Your task to perform on an android device: refresh tabs in the chrome app Image 0: 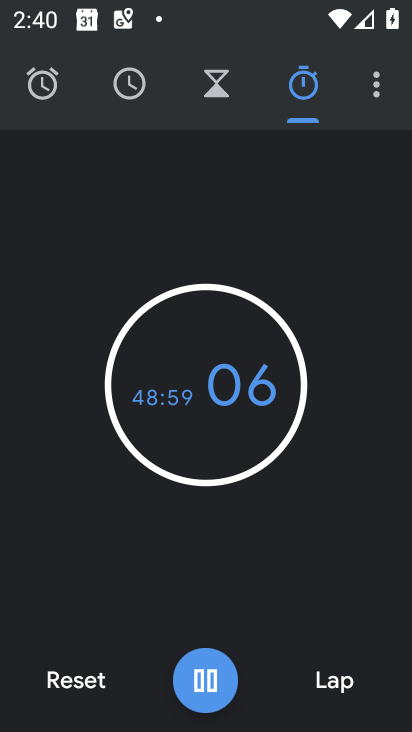
Step 0: press home button
Your task to perform on an android device: refresh tabs in the chrome app Image 1: 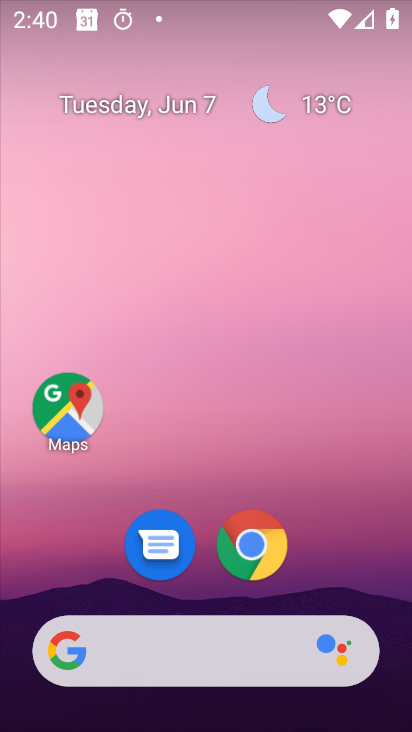
Step 1: click (270, 551)
Your task to perform on an android device: refresh tabs in the chrome app Image 2: 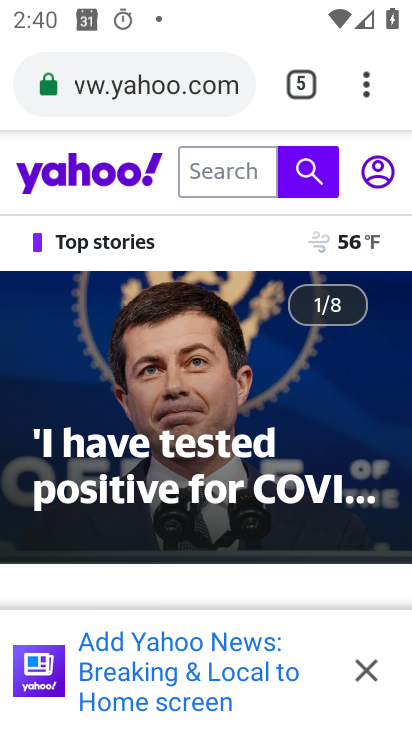
Step 2: click (366, 80)
Your task to perform on an android device: refresh tabs in the chrome app Image 3: 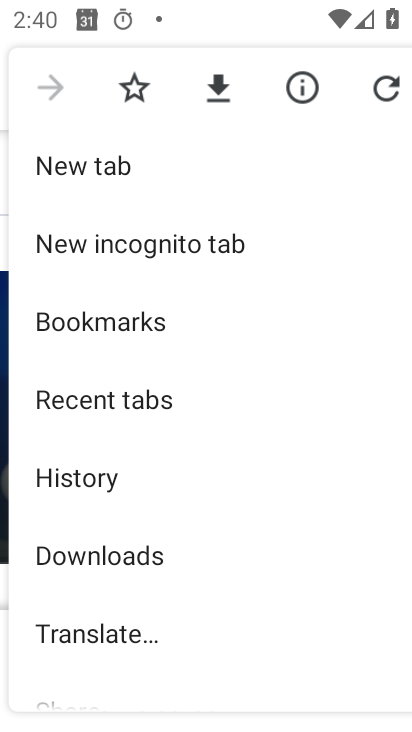
Step 3: click (367, 82)
Your task to perform on an android device: refresh tabs in the chrome app Image 4: 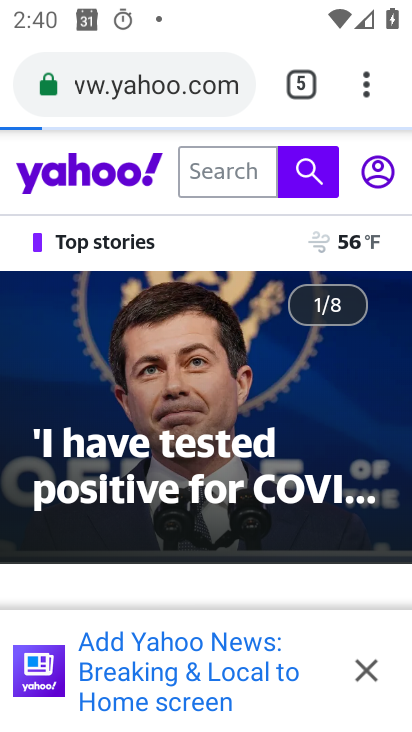
Step 4: task complete